Your task to perform on an android device: Open Chrome and go to settings Image 0: 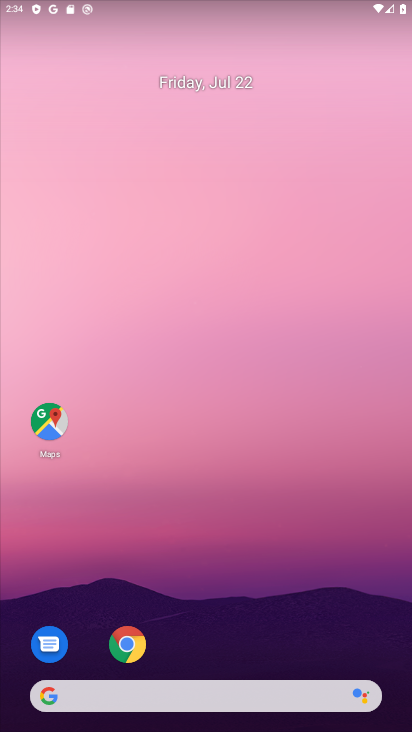
Step 0: click (137, 643)
Your task to perform on an android device: Open Chrome and go to settings Image 1: 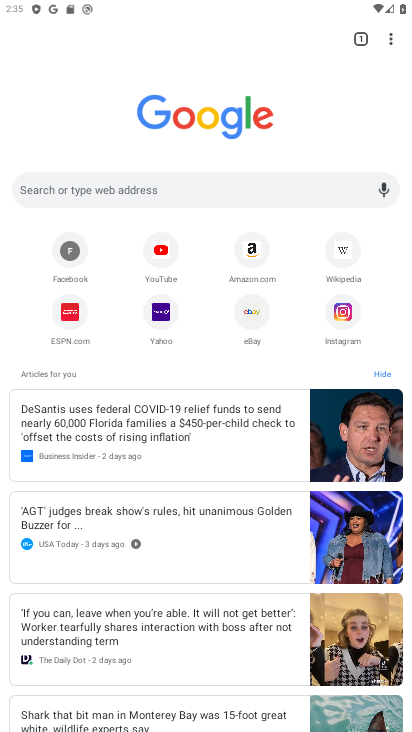
Step 1: click (387, 44)
Your task to perform on an android device: Open Chrome and go to settings Image 2: 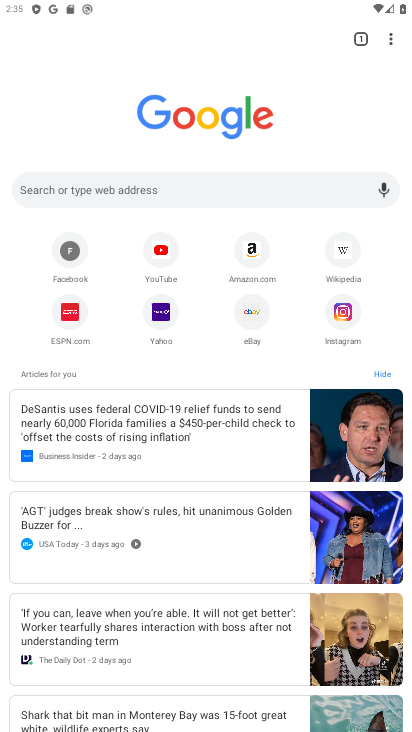
Step 2: click (396, 41)
Your task to perform on an android device: Open Chrome and go to settings Image 3: 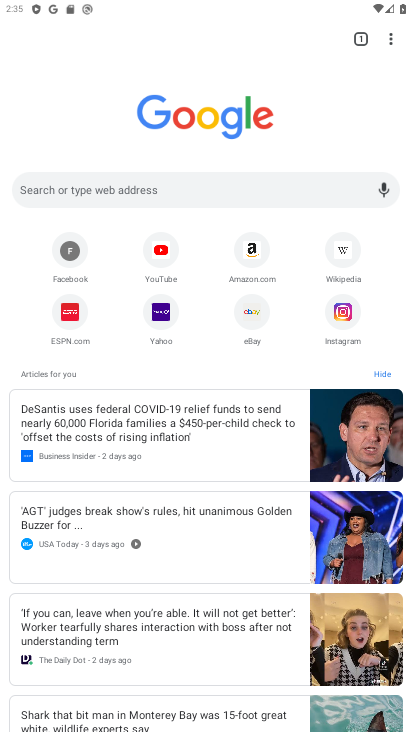
Step 3: click (397, 41)
Your task to perform on an android device: Open Chrome and go to settings Image 4: 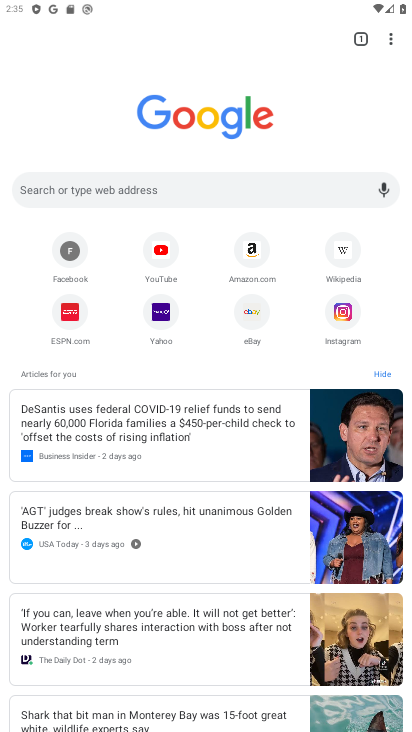
Step 4: click (399, 45)
Your task to perform on an android device: Open Chrome and go to settings Image 5: 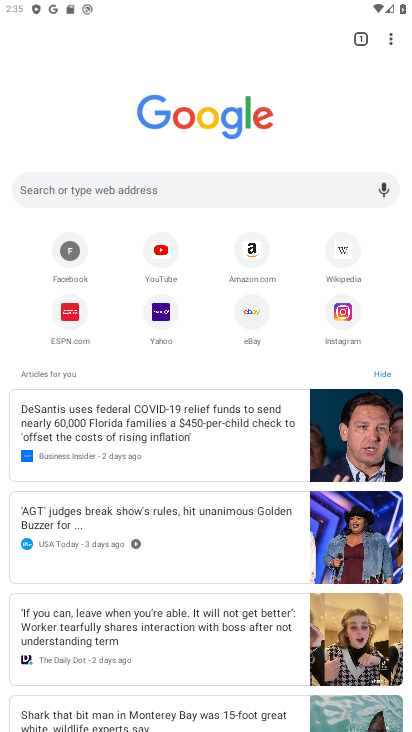
Step 5: click (401, 43)
Your task to perform on an android device: Open Chrome and go to settings Image 6: 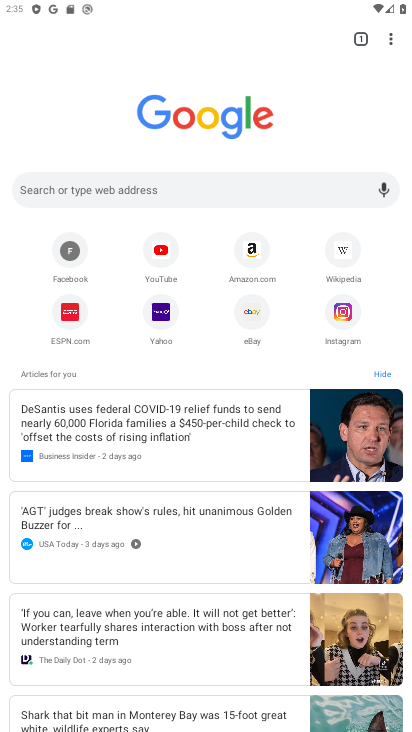
Step 6: click (397, 43)
Your task to perform on an android device: Open Chrome and go to settings Image 7: 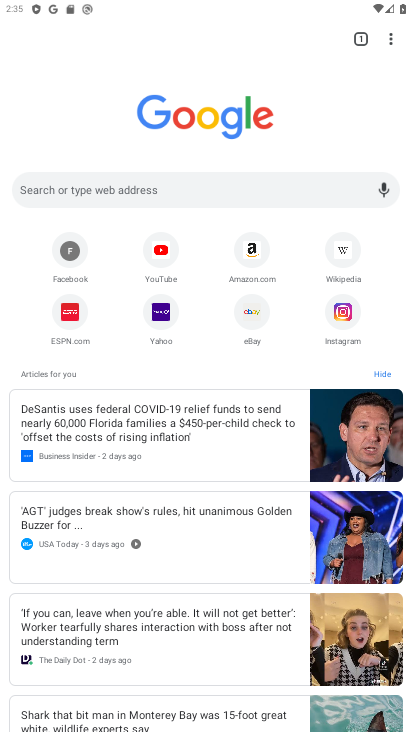
Step 7: click (391, 33)
Your task to perform on an android device: Open Chrome and go to settings Image 8: 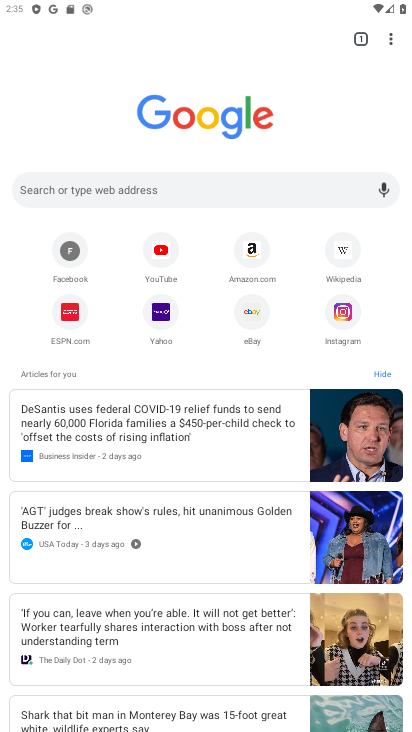
Step 8: click (397, 34)
Your task to perform on an android device: Open Chrome and go to settings Image 9: 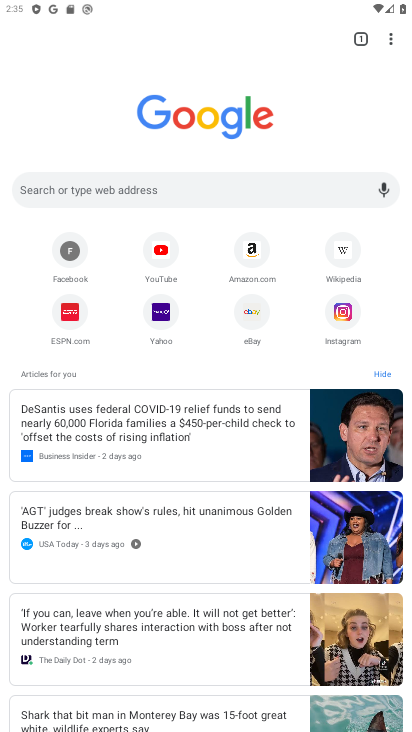
Step 9: click (389, 42)
Your task to perform on an android device: Open Chrome and go to settings Image 10: 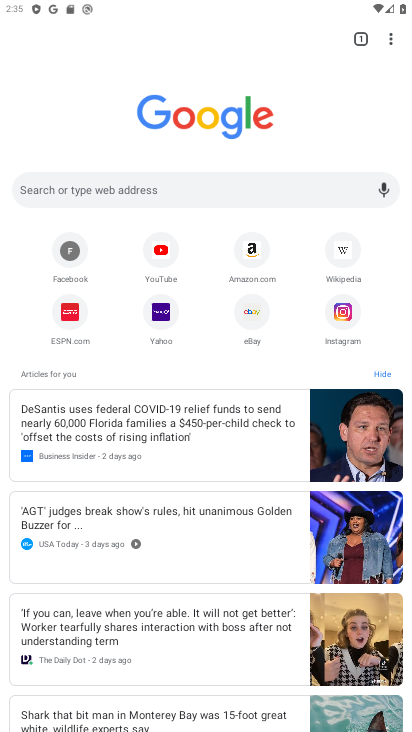
Step 10: click (393, 50)
Your task to perform on an android device: Open Chrome and go to settings Image 11: 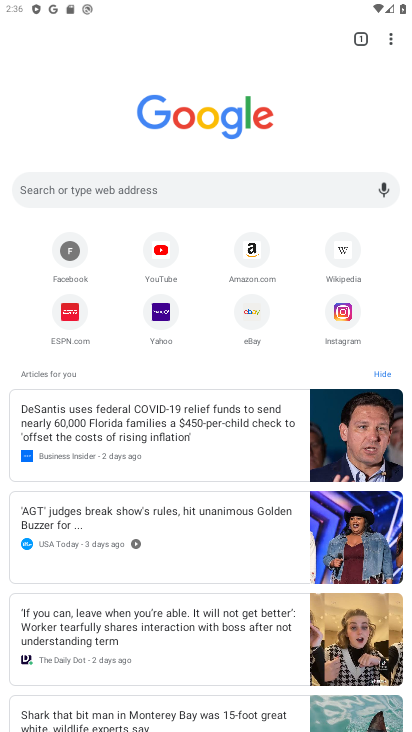
Step 11: click (400, 46)
Your task to perform on an android device: Open Chrome and go to settings Image 12: 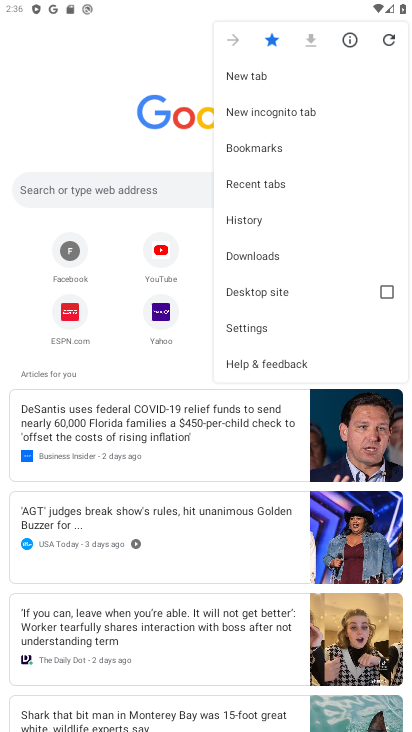
Step 12: click (254, 328)
Your task to perform on an android device: Open Chrome and go to settings Image 13: 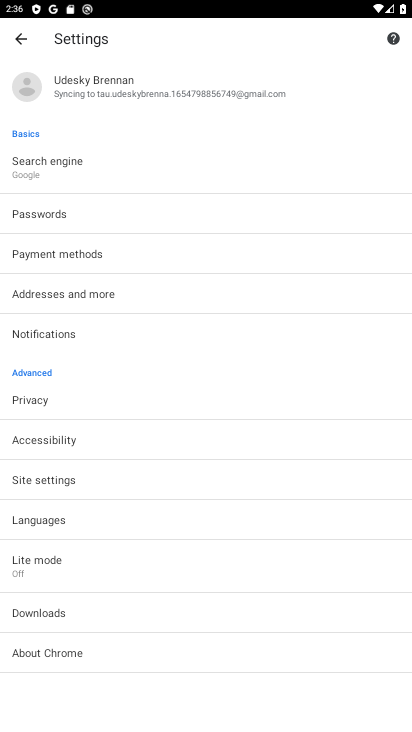
Step 13: task complete